Your task to perform on an android device: find snoozed emails in the gmail app Image 0: 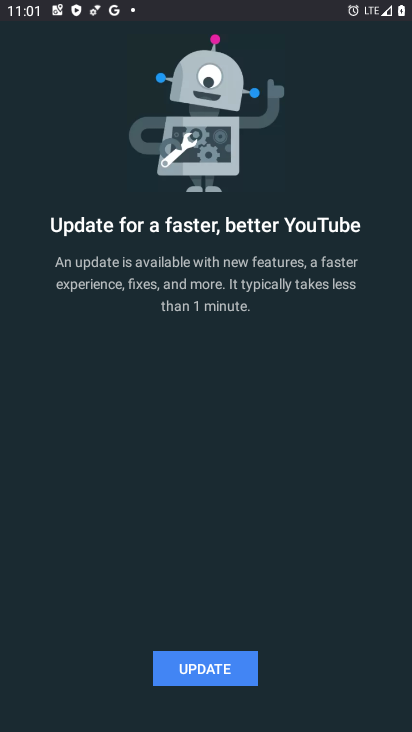
Step 0: press home button
Your task to perform on an android device: find snoozed emails in the gmail app Image 1: 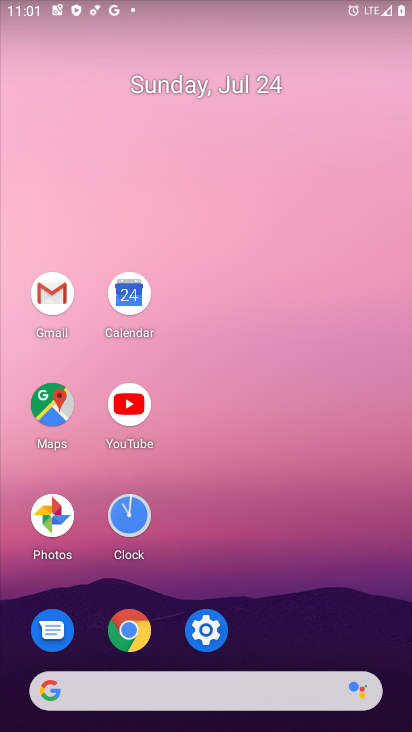
Step 1: click (49, 291)
Your task to perform on an android device: find snoozed emails in the gmail app Image 2: 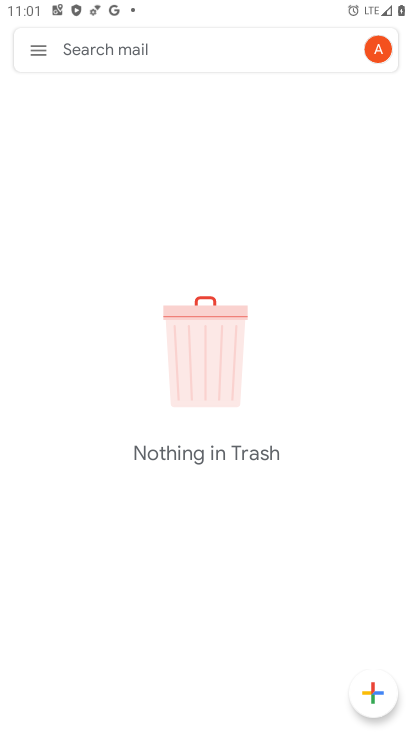
Step 2: click (35, 44)
Your task to perform on an android device: find snoozed emails in the gmail app Image 3: 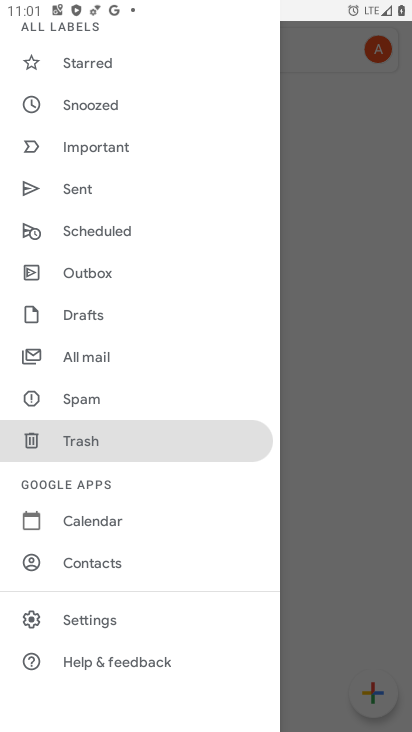
Step 3: click (99, 102)
Your task to perform on an android device: find snoozed emails in the gmail app Image 4: 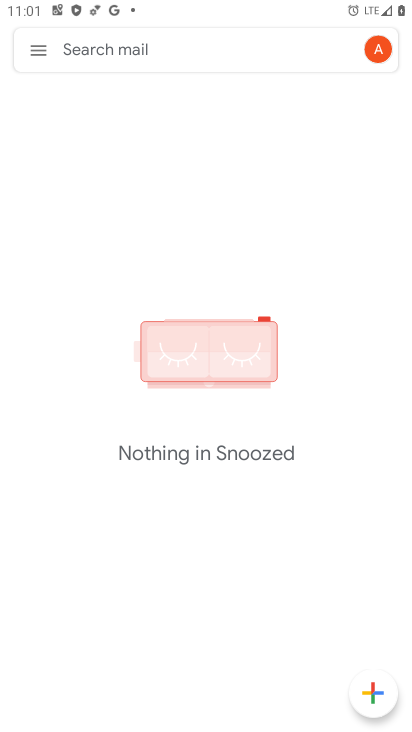
Step 4: task complete